Your task to perform on an android device: turn off picture-in-picture Image 0: 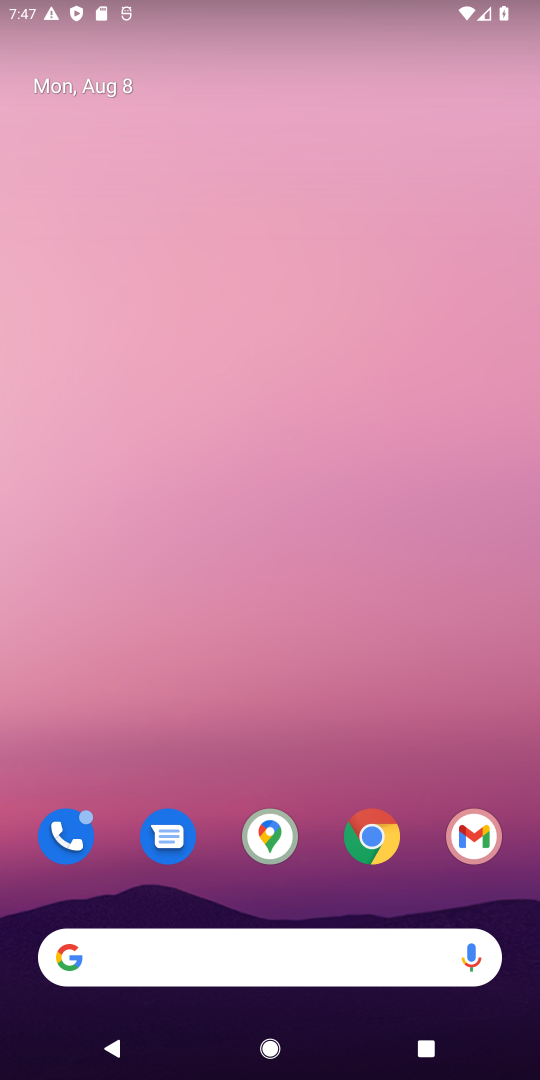
Step 0: click (374, 825)
Your task to perform on an android device: turn off picture-in-picture Image 1: 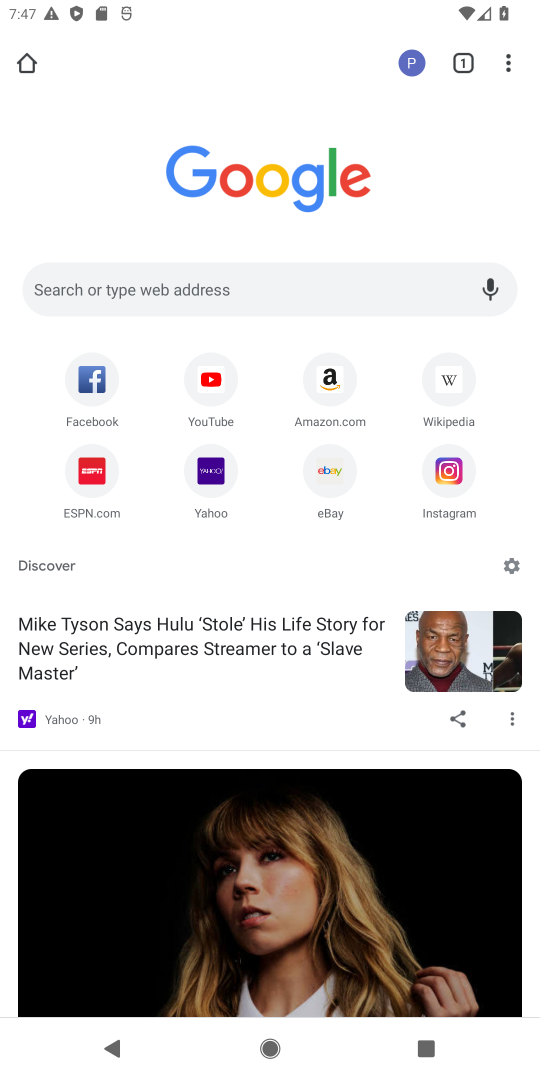
Step 1: press home button
Your task to perform on an android device: turn off picture-in-picture Image 2: 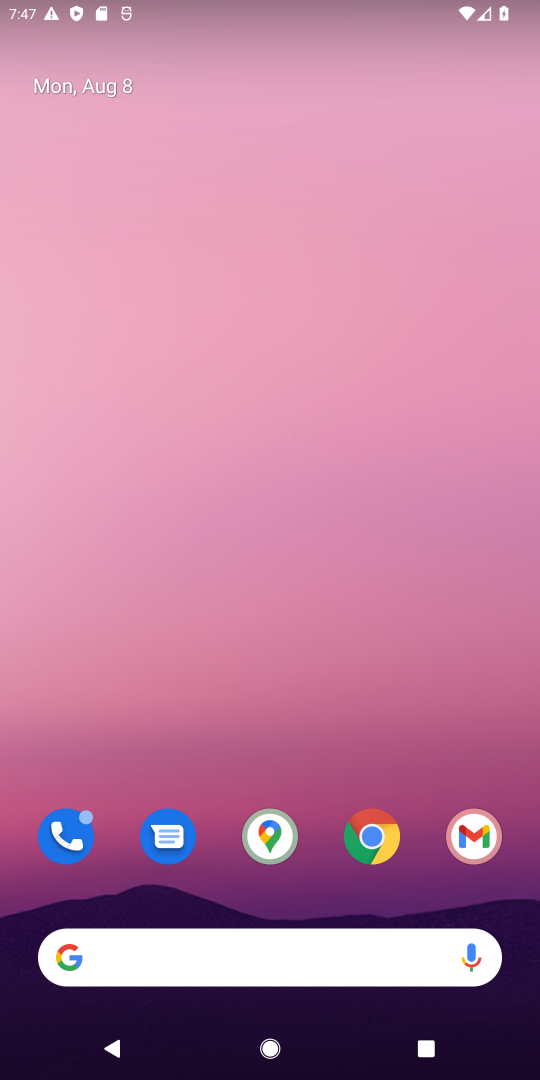
Step 2: click (398, 857)
Your task to perform on an android device: turn off picture-in-picture Image 3: 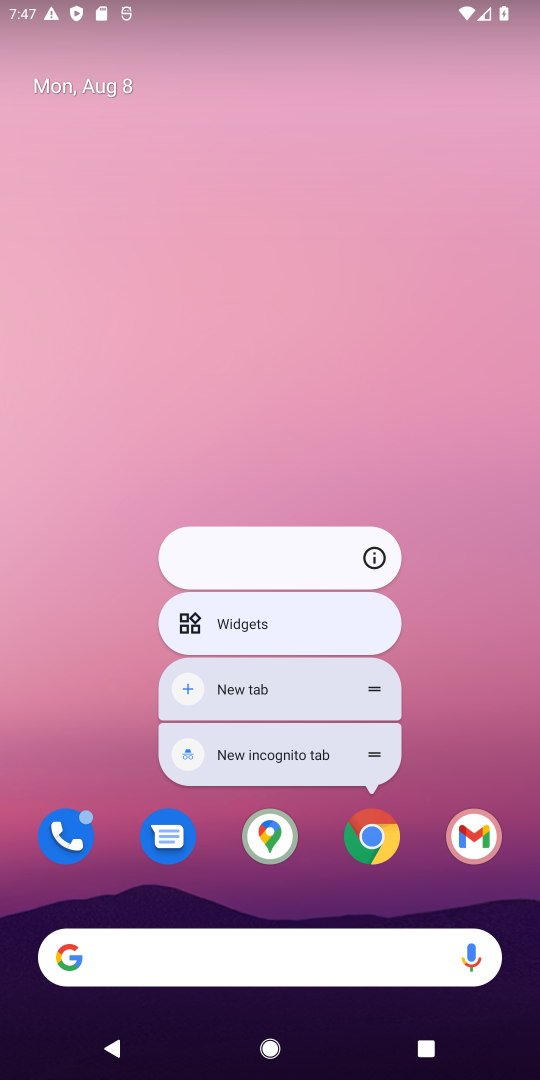
Step 3: click (375, 556)
Your task to perform on an android device: turn off picture-in-picture Image 4: 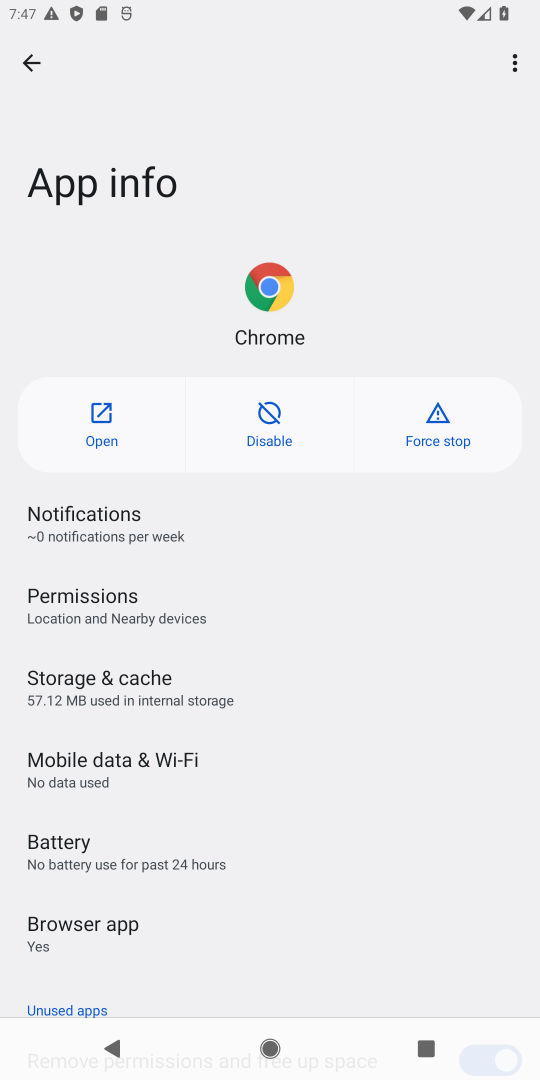
Step 4: drag from (259, 971) to (192, 6)
Your task to perform on an android device: turn off picture-in-picture Image 5: 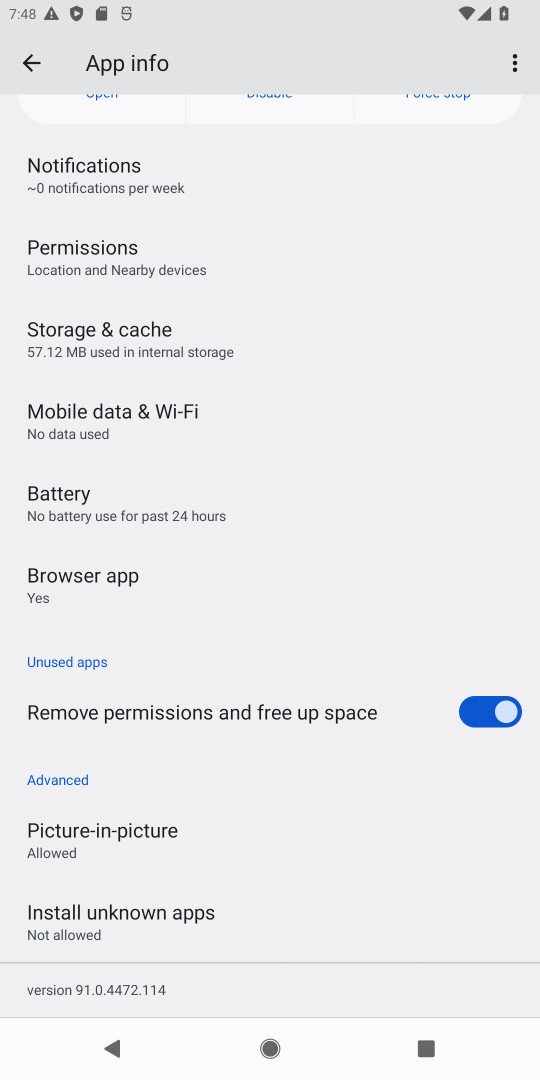
Step 5: click (217, 843)
Your task to perform on an android device: turn off picture-in-picture Image 6: 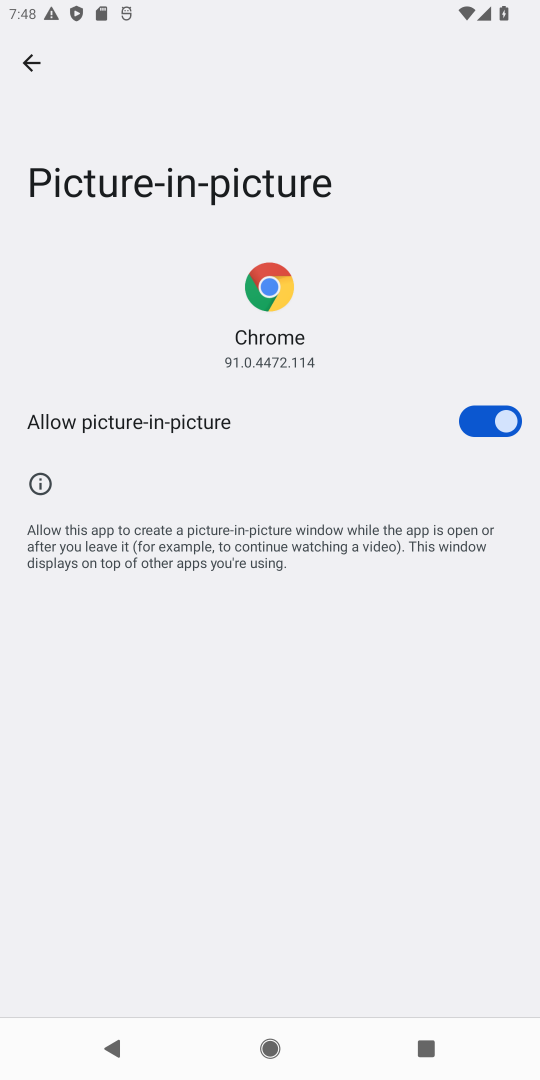
Step 6: click (480, 446)
Your task to perform on an android device: turn off picture-in-picture Image 7: 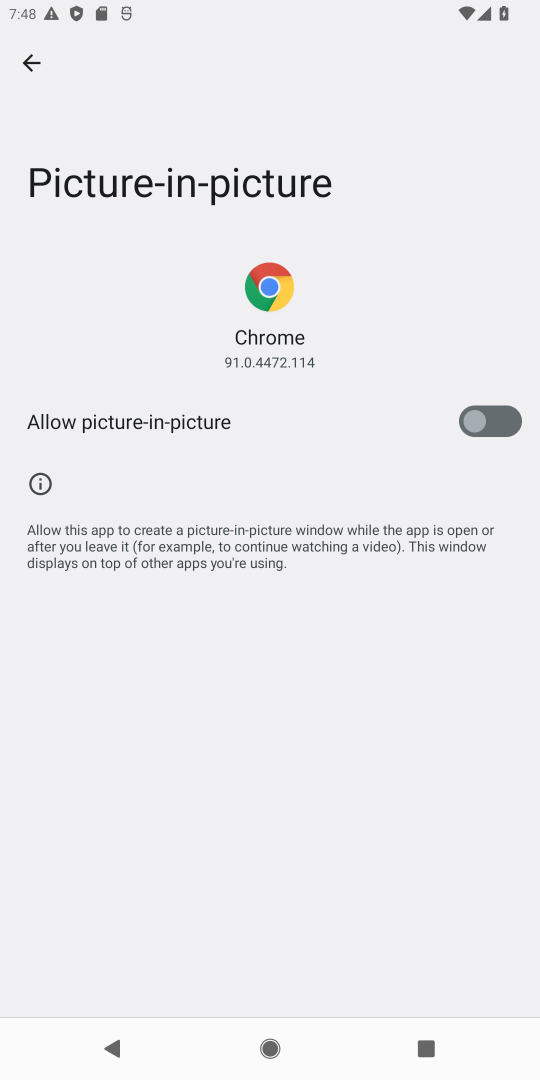
Step 7: task complete